Your task to perform on an android device: open app "Microsoft Outlook" Image 0: 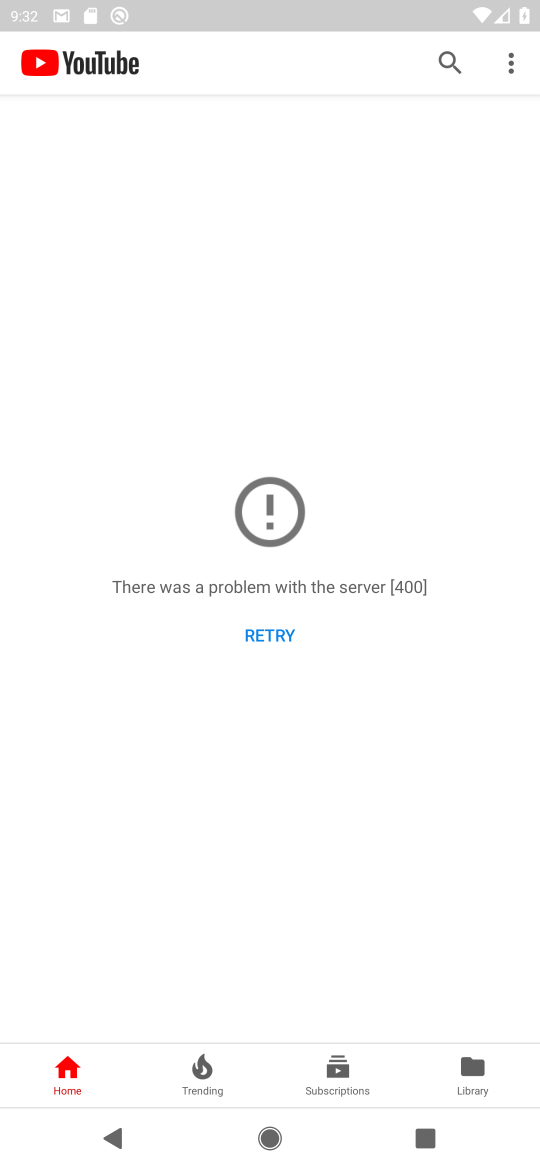
Step 0: press home button
Your task to perform on an android device: open app "Microsoft Outlook" Image 1: 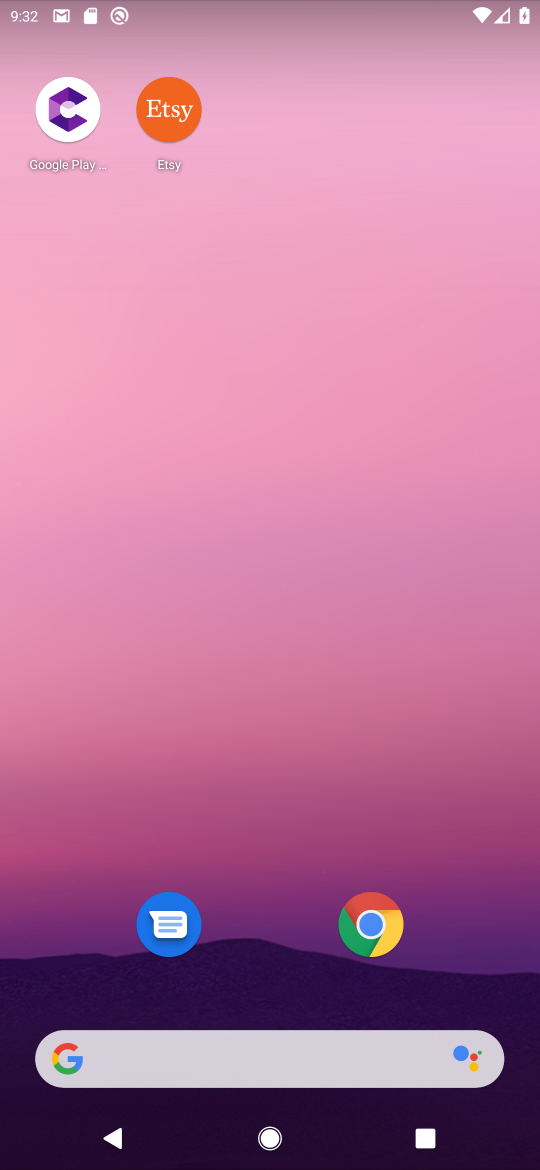
Step 1: drag from (274, 1048) to (306, 10)
Your task to perform on an android device: open app "Microsoft Outlook" Image 2: 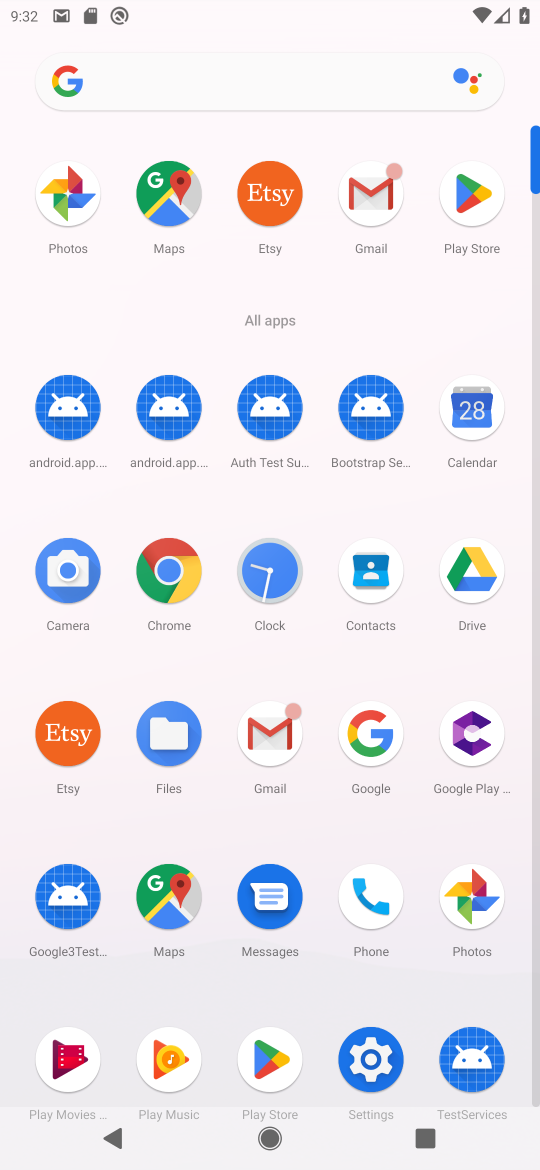
Step 2: click (271, 1048)
Your task to perform on an android device: open app "Microsoft Outlook" Image 3: 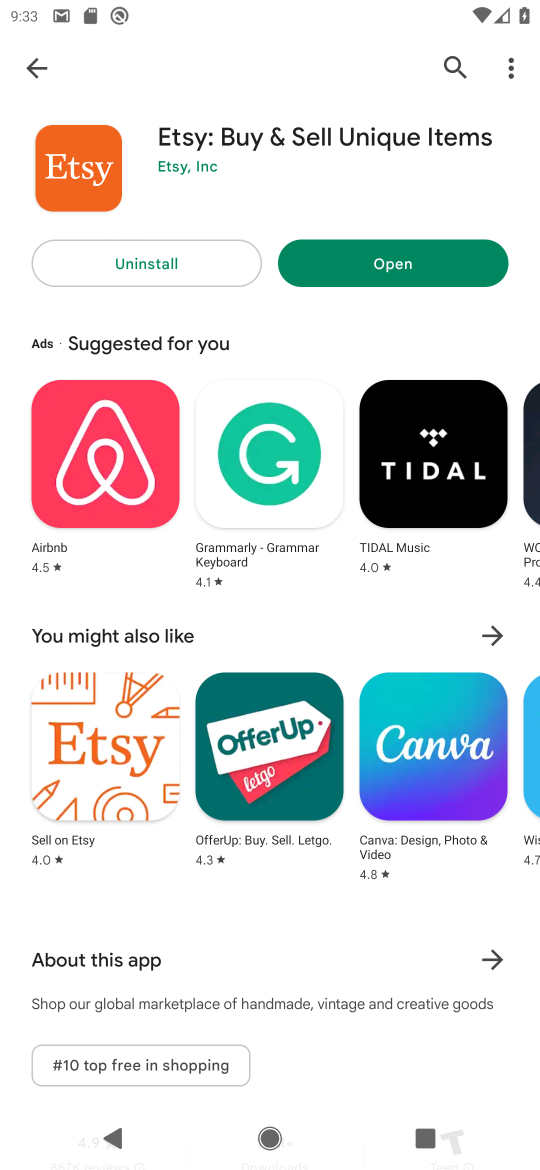
Step 3: click (458, 75)
Your task to perform on an android device: open app "Microsoft Outlook" Image 4: 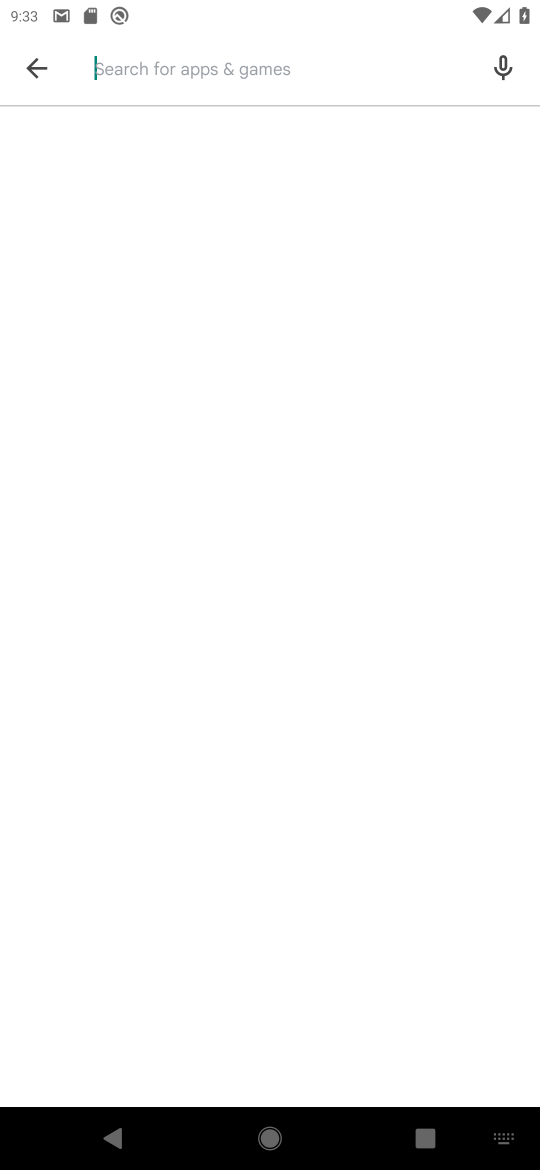
Step 4: type "Microsoft Outlook"
Your task to perform on an android device: open app "Microsoft Outlook" Image 5: 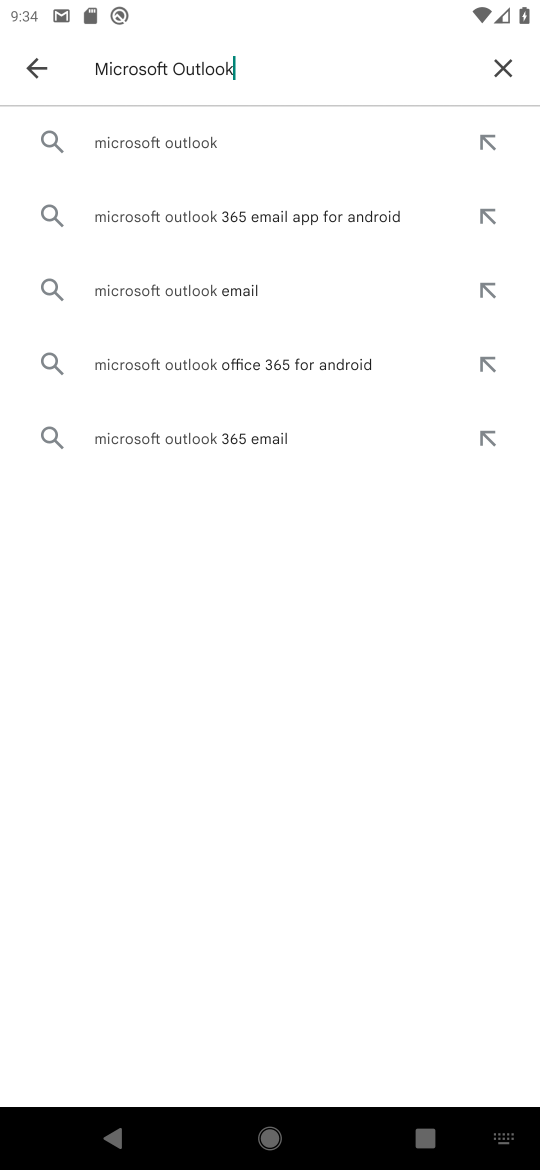
Step 5: click (129, 155)
Your task to perform on an android device: open app "Microsoft Outlook" Image 6: 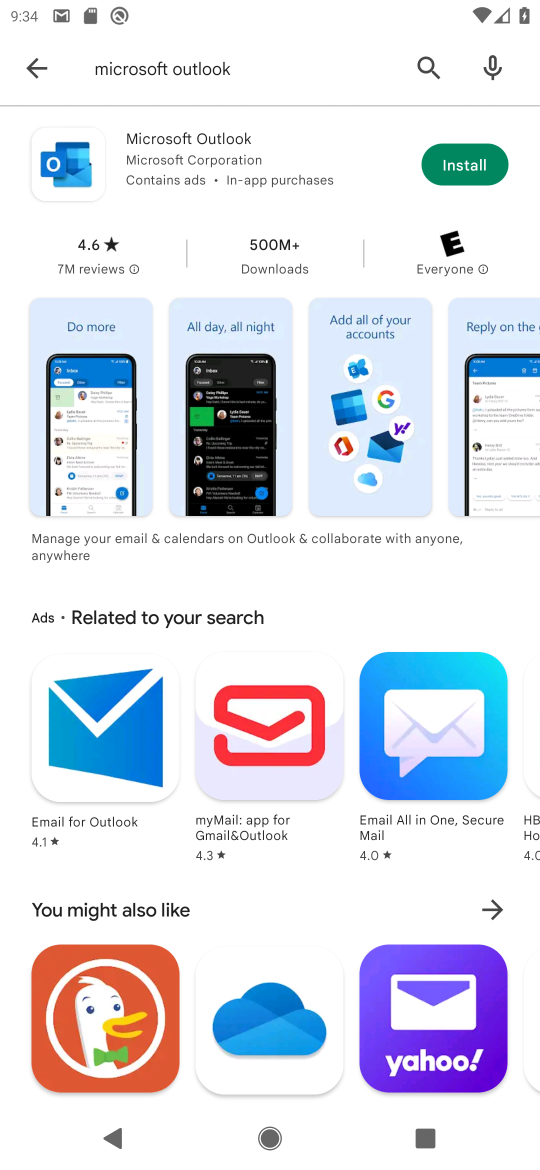
Step 6: task complete